Your task to perform on an android device: When is my next meeting? Image 0: 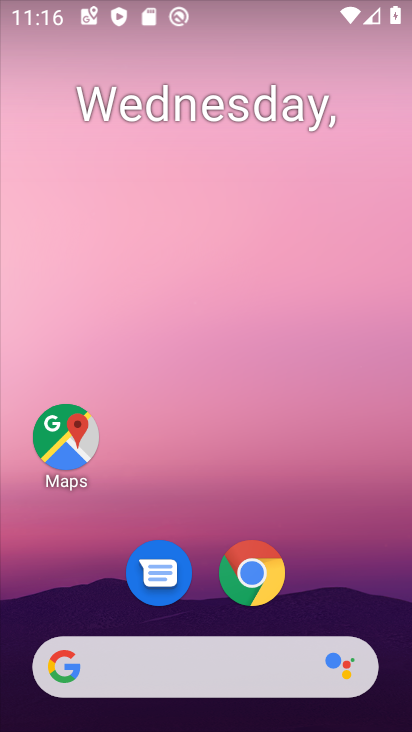
Step 0: drag from (200, 639) to (200, 229)
Your task to perform on an android device: When is my next meeting? Image 1: 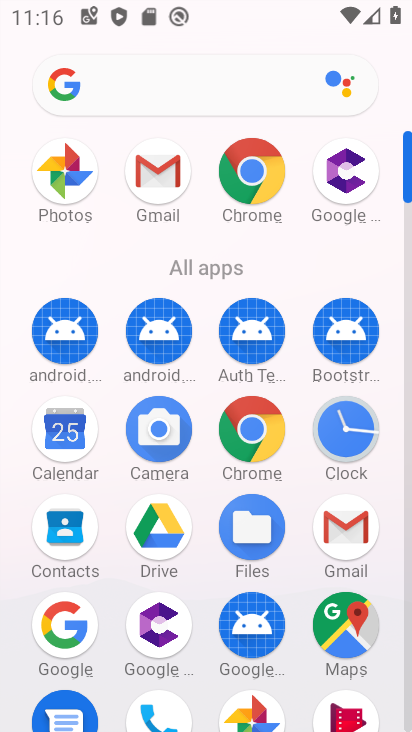
Step 1: click (70, 427)
Your task to perform on an android device: When is my next meeting? Image 2: 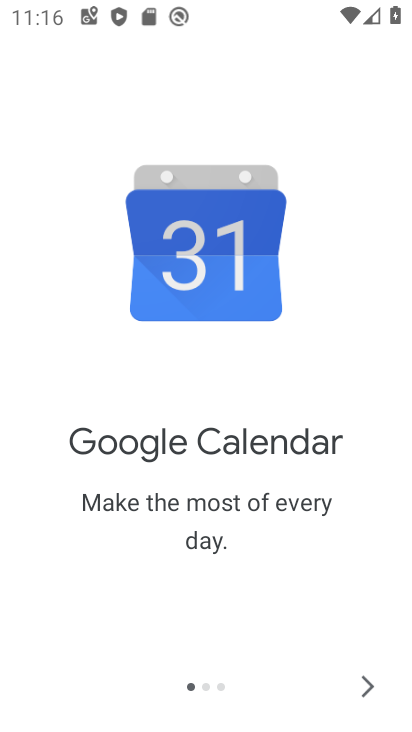
Step 2: click (357, 695)
Your task to perform on an android device: When is my next meeting? Image 3: 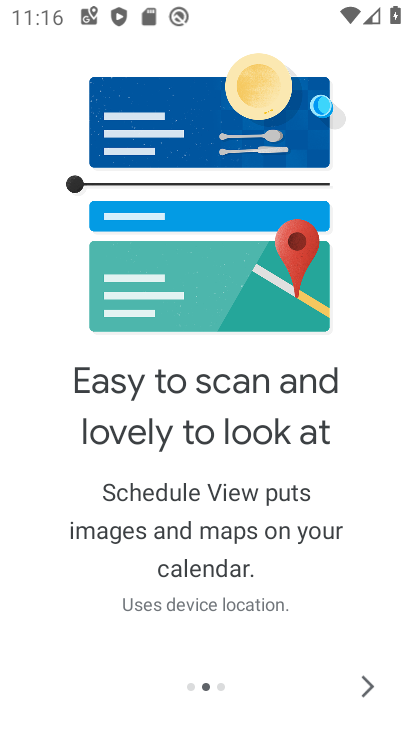
Step 3: click (357, 695)
Your task to perform on an android device: When is my next meeting? Image 4: 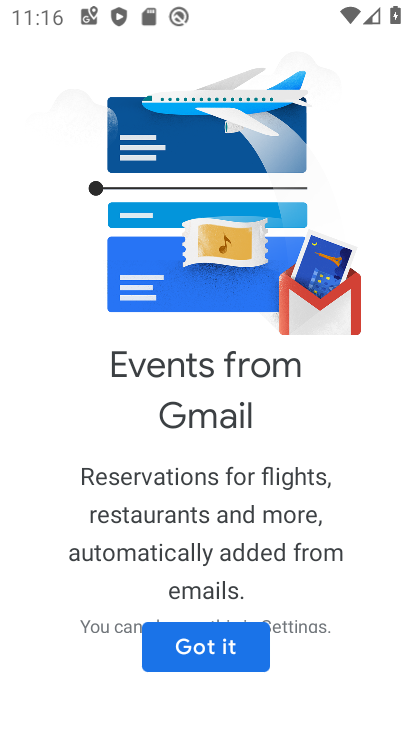
Step 4: click (211, 630)
Your task to perform on an android device: When is my next meeting? Image 5: 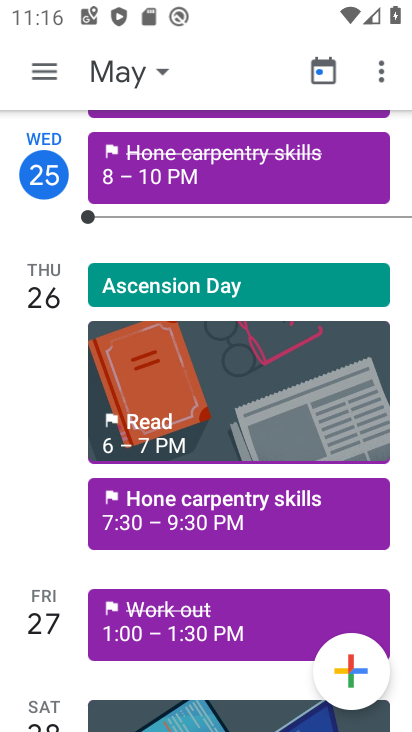
Step 5: click (165, 438)
Your task to perform on an android device: When is my next meeting? Image 6: 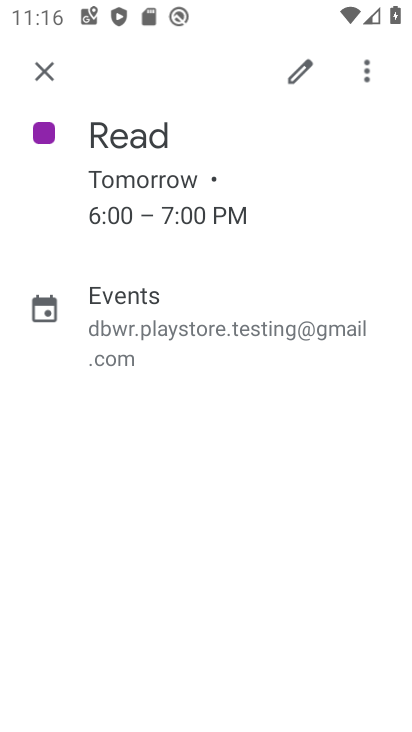
Step 6: task complete